Your task to perform on an android device: Open the web browser Image 0: 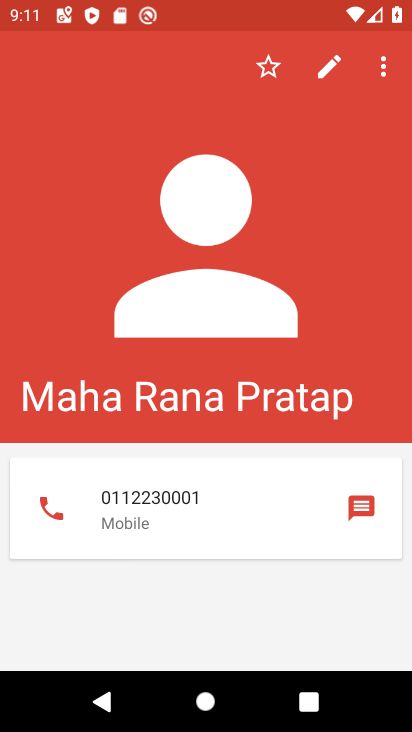
Step 0: press home button
Your task to perform on an android device: Open the web browser Image 1: 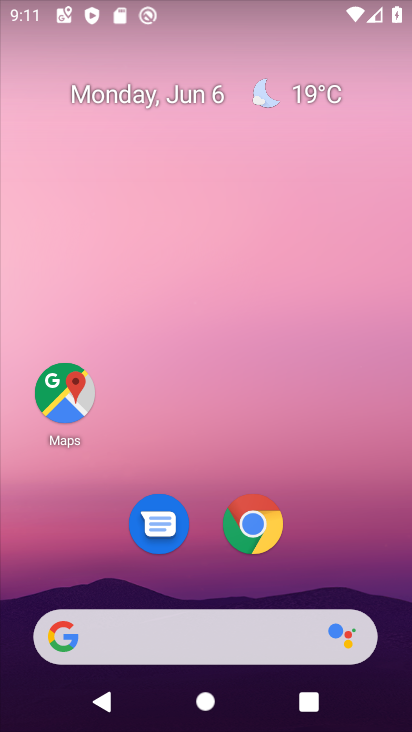
Step 1: click (265, 630)
Your task to perform on an android device: Open the web browser Image 2: 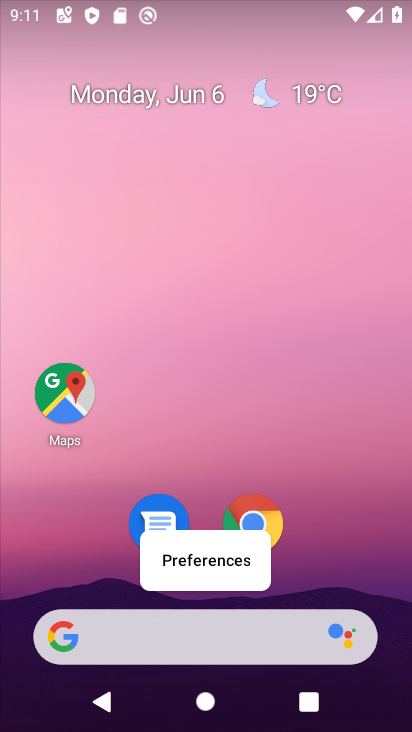
Step 2: click (182, 640)
Your task to perform on an android device: Open the web browser Image 3: 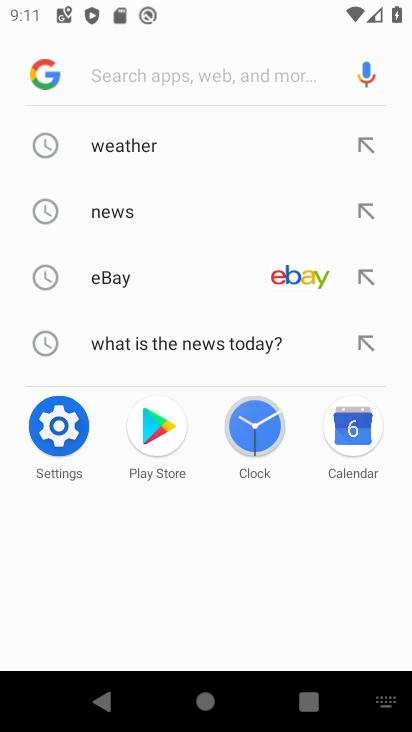
Step 3: task complete